Your task to perform on an android device: Open Maps and search for coffee Image 0: 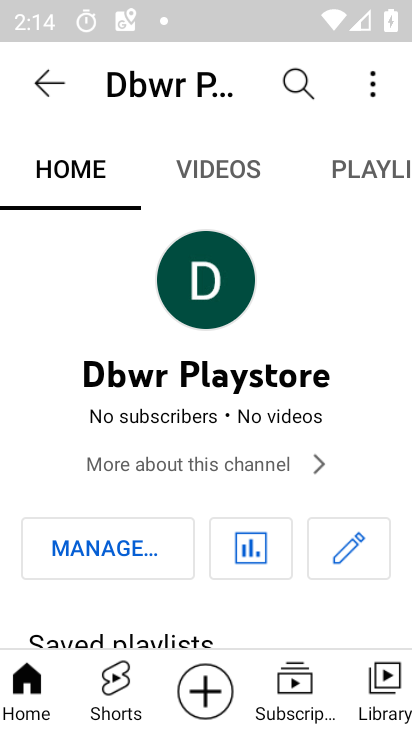
Step 0: task complete